Your task to perform on an android device: Do I have any events this weekend? Image 0: 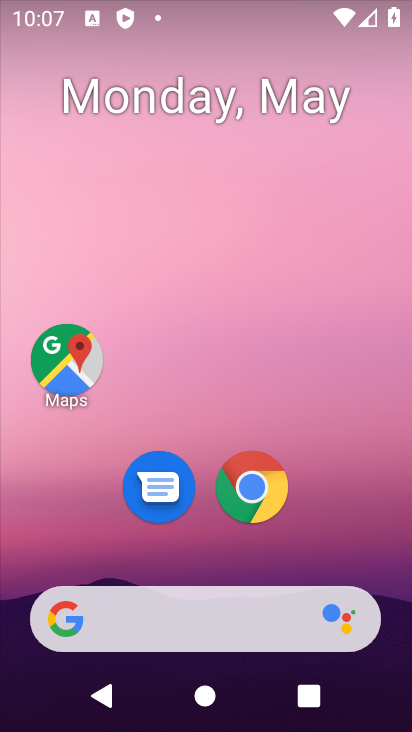
Step 0: drag from (184, 556) to (175, 182)
Your task to perform on an android device: Do I have any events this weekend? Image 1: 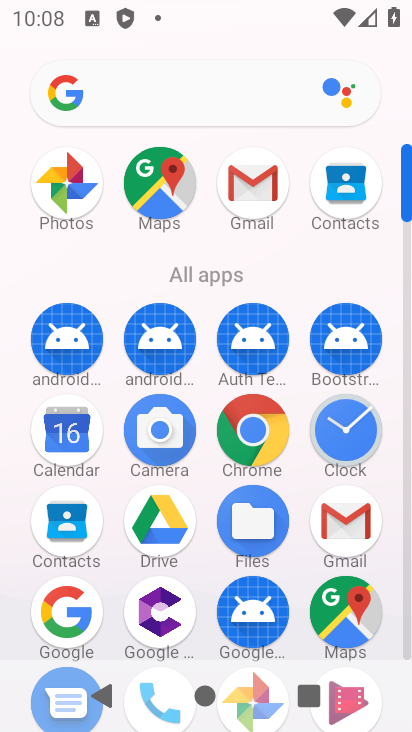
Step 1: click (72, 449)
Your task to perform on an android device: Do I have any events this weekend? Image 2: 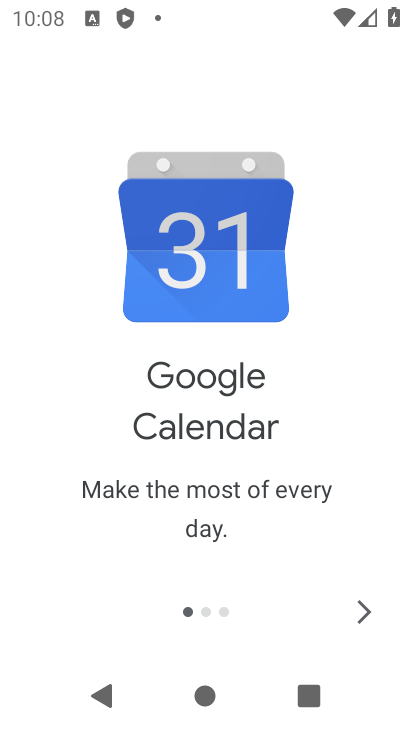
Step 2: click (357, 621)
Your task to perform on an android device: Do I have any events this weekend? Image 3: 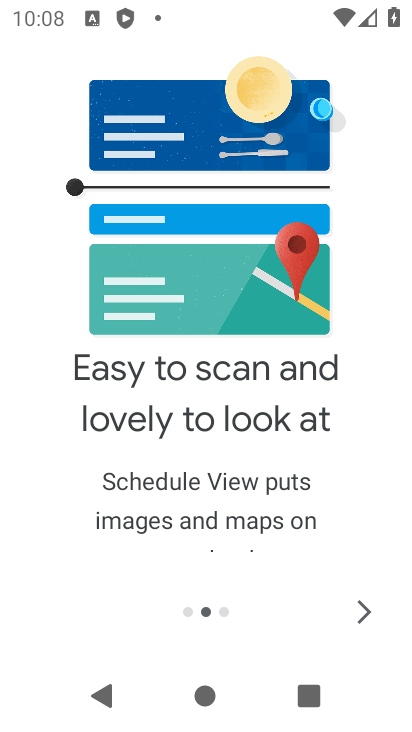
Step 3: click (356, 620)
Your task to perform on an android device: Do I have any events this weekend? Image 4: 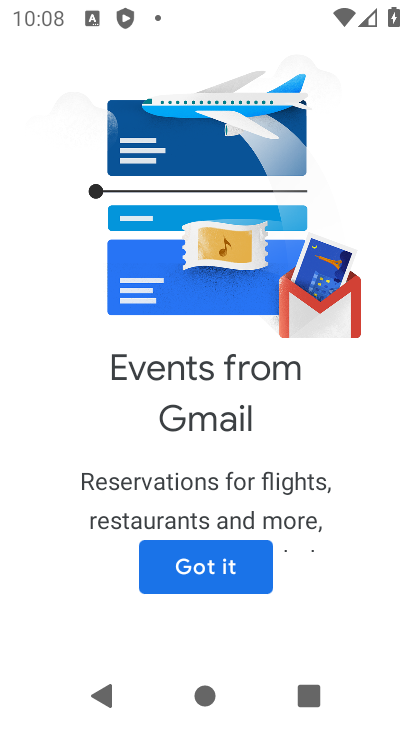
Step 4: click (233, 568)
Your task to perform on an android device: Do I have any events this weekend? Image 5: 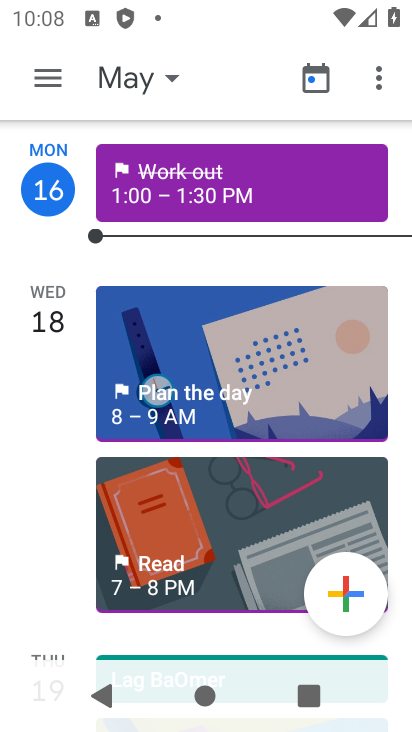
Step 5: click (54, 92)
Your task to perform on an android device: Do I have any events this weekend? Image 6: 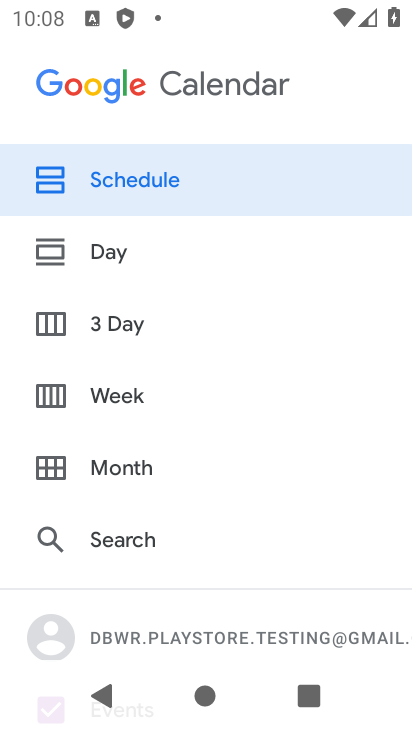
Step 6: click (147, 413)
Your task to perform on an android device: Do I have any events this weekend? Image 7: 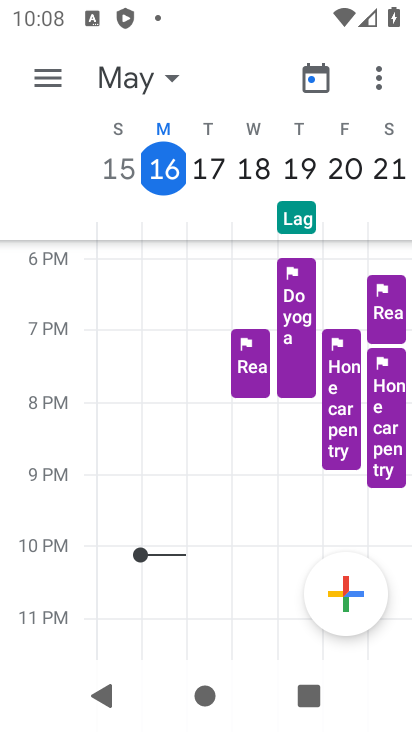
Step 7: click (392, 164)
Your task to perform on an android device: Do I have any events this weekend? Image 8: 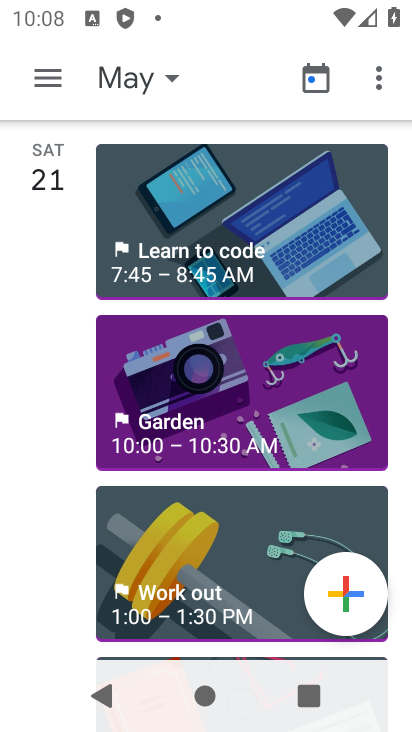
Step 8: task complete